Your task to perform on an android device: Open Android settings Image 0: 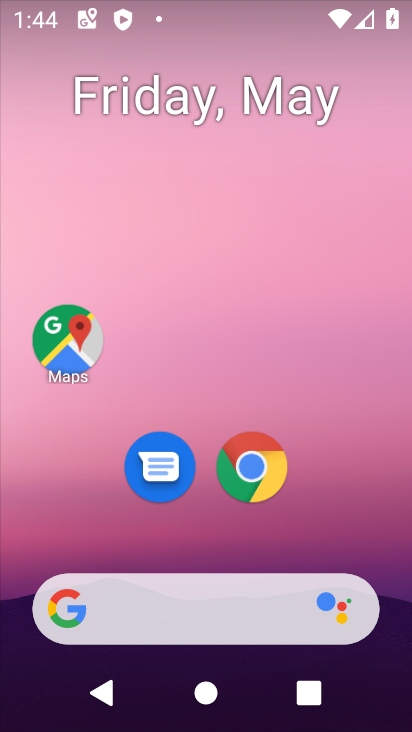
Step 0: drag from (297, 512) to (318, 89)
Your task to perform on an android device: Open Android settings Image 1: 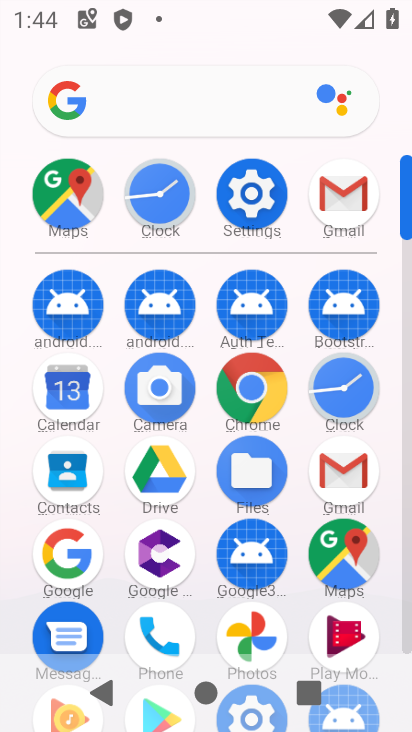
Step 1: click (249, 193)
Your task to perform on an android device: Open Android settings Image 2: 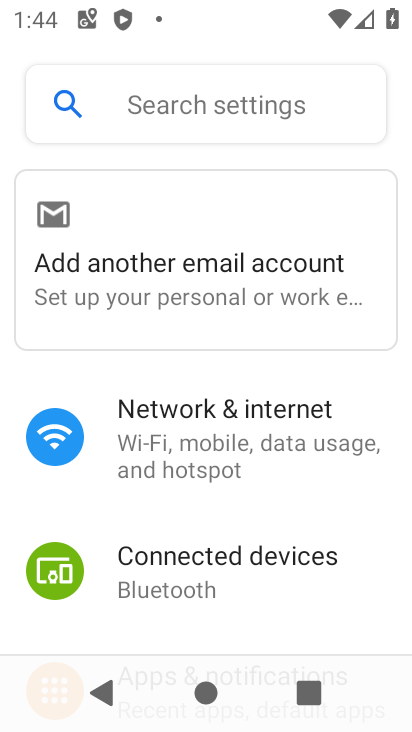
Step 2: task complete